Your task to perform on an android device: toggle sleep mode Image 0: 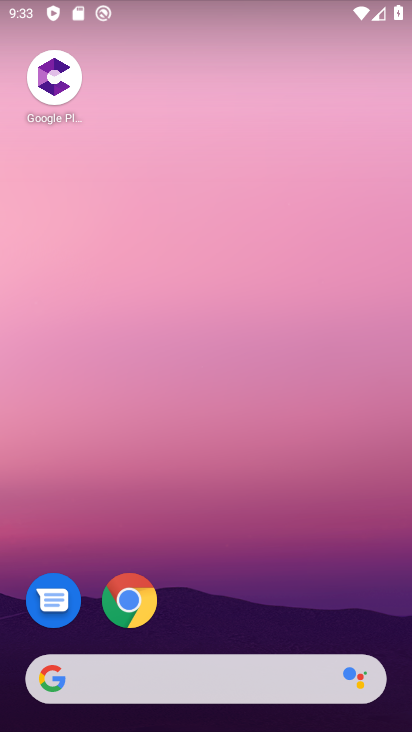
Step 0: drag from (281, 574) to (316, 150)
Your task to perform on an android device: toggle sleep mode Image 1: 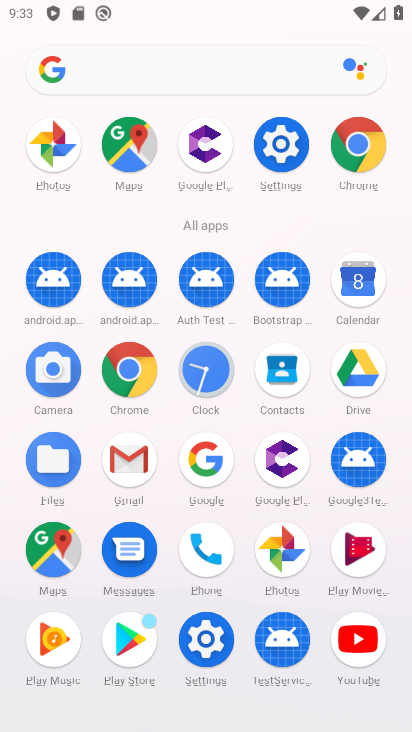
Step 1: click (279, 150)
Your task to perform on an android device: toggle sleep mode Image 2: 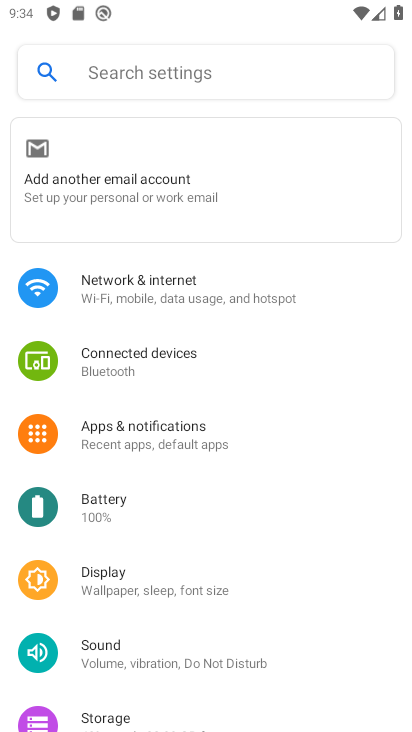
Step 2: drag from (179, 640) to (185, 423)
Your task to perform on an android device: toggle sleep mode Image 3: 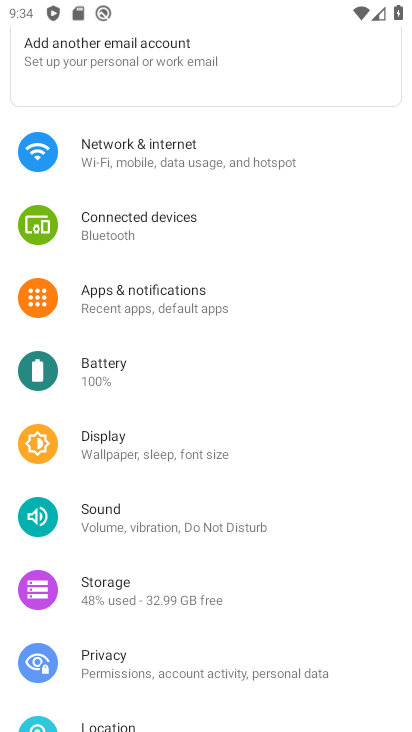
Step 3: drag from (198, 543) to (196, 457)
Your task to perform on an android device: toggle sleep mode Image 4: 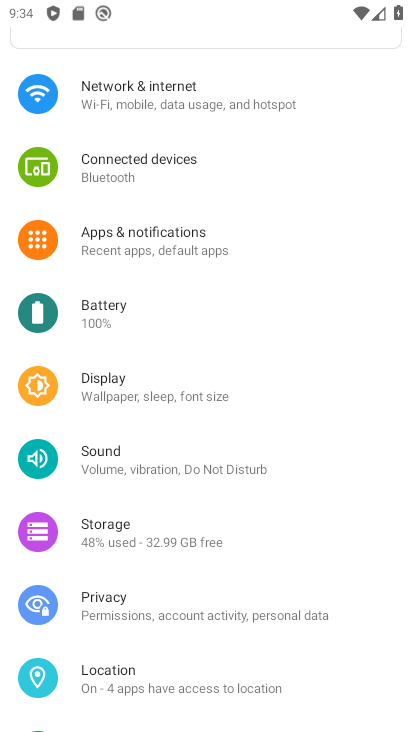
Step 4: click (174, 398)
Your task to perform on an android device: toggle sleep mode Image 5: 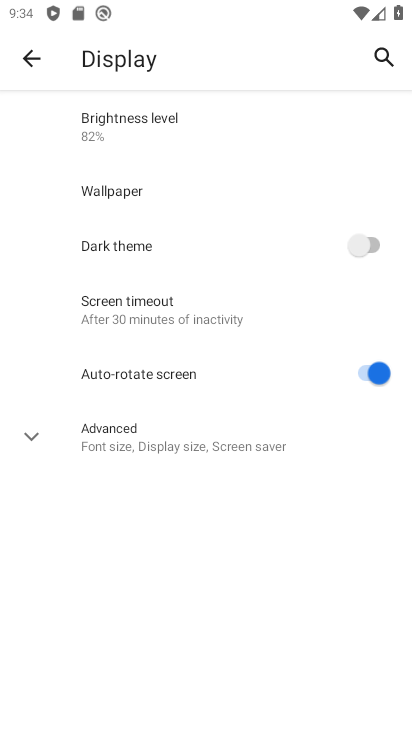
Step 5: click (41, 433)
Your task to perform on an android device: toggle sleep mode Image 6: 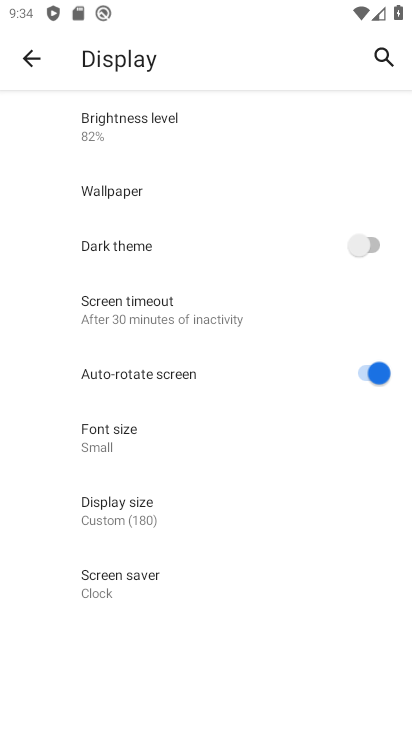
Step 6: task complete